Your task to perform on an android device: change the clock display to show seconds Image 0: 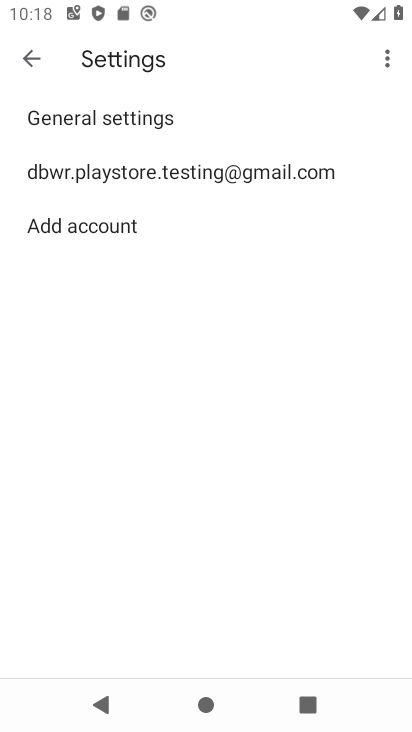
Step 0: press home button
Your task to perform on an android device: change the clock display to show seconds Image 1: 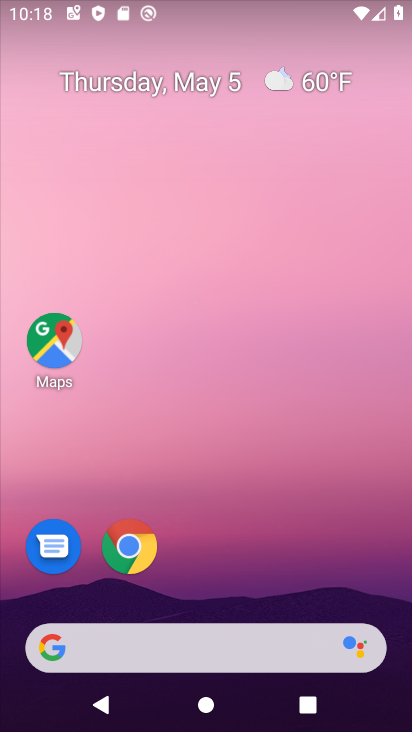
Step 1: drag from (288, 554) to (184, 103)
Your task to perform on an android device: change the clock display to show seconds Image 2: 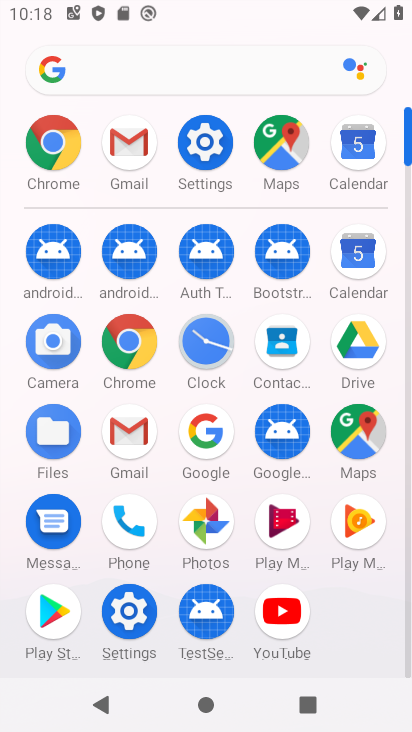
Step 2: click (197, 351)
Your task to perform on an android device: change the clock display to show seconds Image 3: 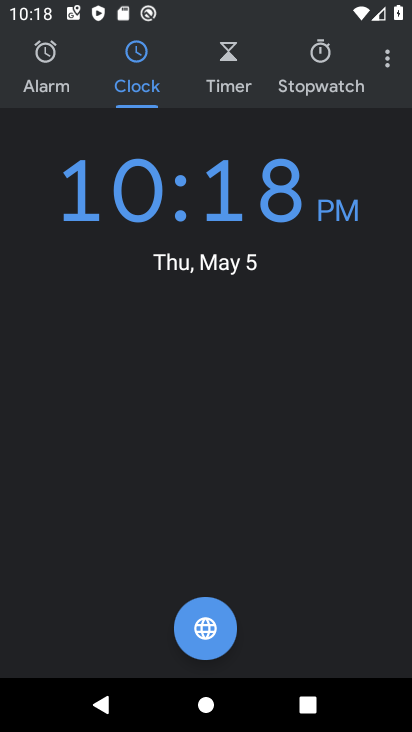
Step 3: click (393, 56)
Your task to perform on an android device: change the clock display to show seconds Image 4: 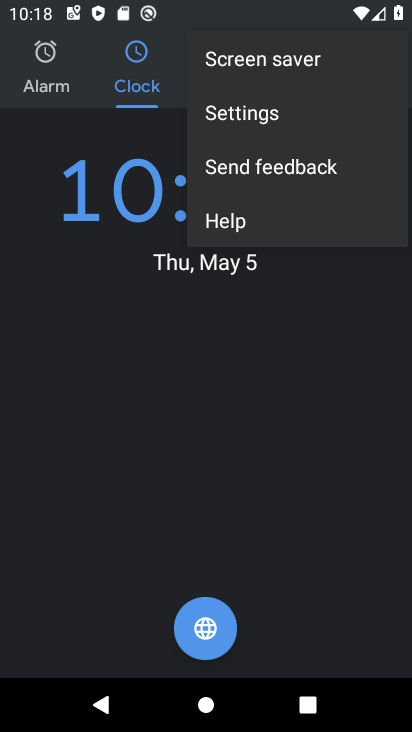
Step 4: click (323, 118)
Your task to perform on an android device: change the clock display to show seconds Image 5: 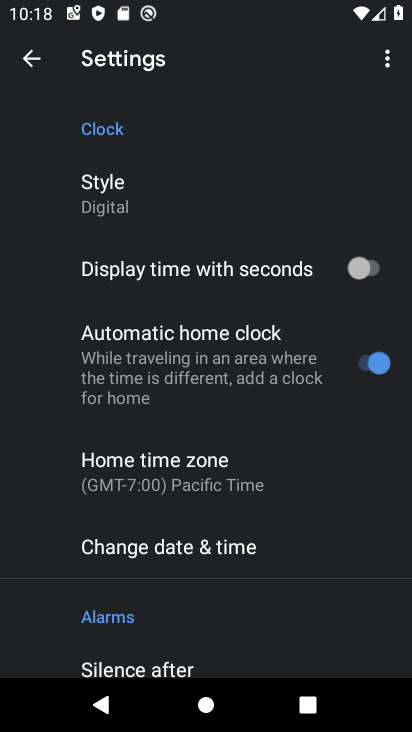
Step 5: click (358, 252)
Your task to perform on an android device: change the clock display to show seconds Image 6: 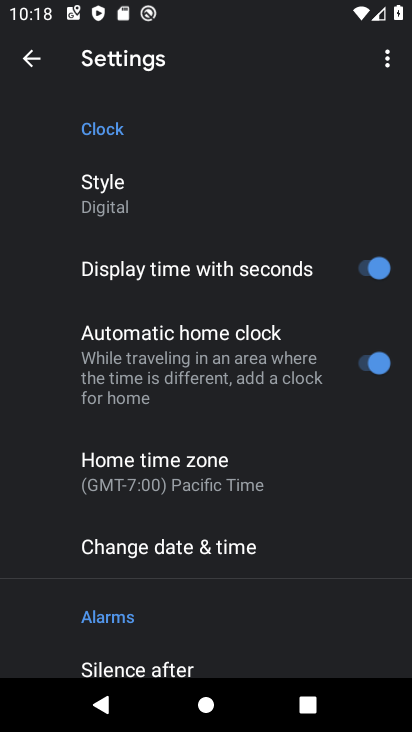
Step 6: task complete